Your task to perform on an android device: Go to Google maps Image 0: 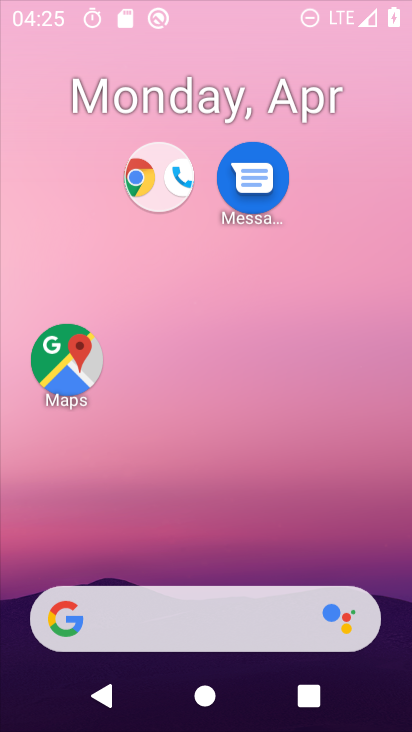
Step 0: click (239, 33)
Your task to perform on an android device: Go to Google maps Image 1: 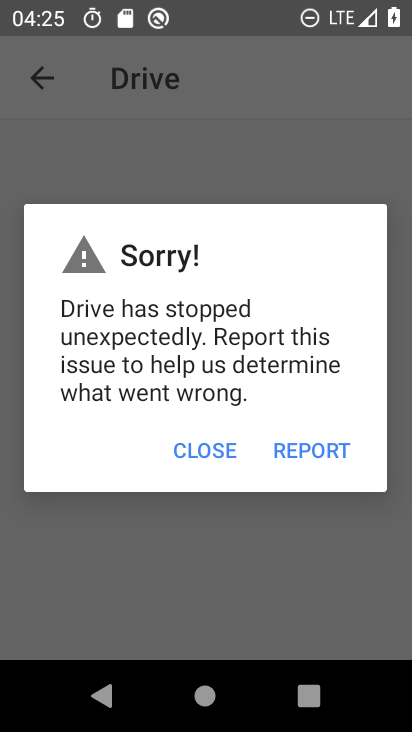
Step 1: press home button
Your task to perform on an android device: Go to Google maps Image 2: 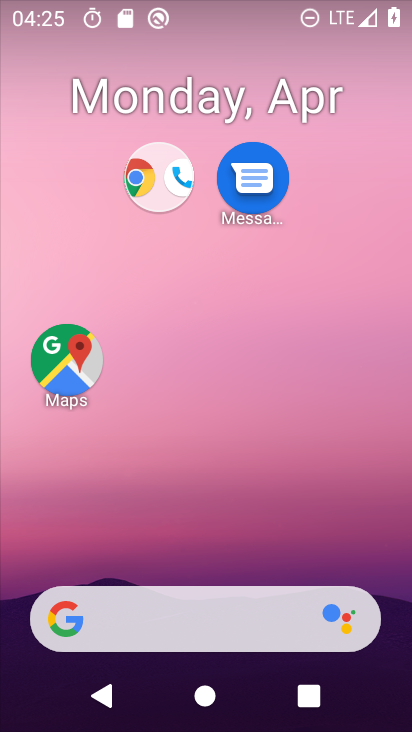
Step 2: drag from (219, 11) to (256, 682)
Your task to perform on an android device: Go to Google maps Image 3: 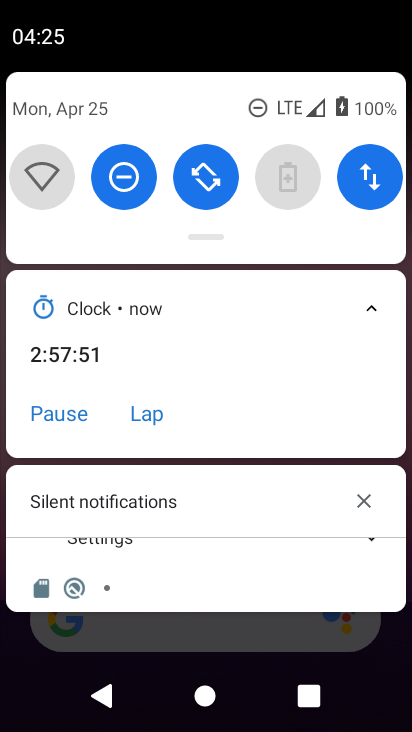
Step 3: drag from (264, 692) to (248, 0)
Your task to perform on an android device: Go to Google maps Image 4: 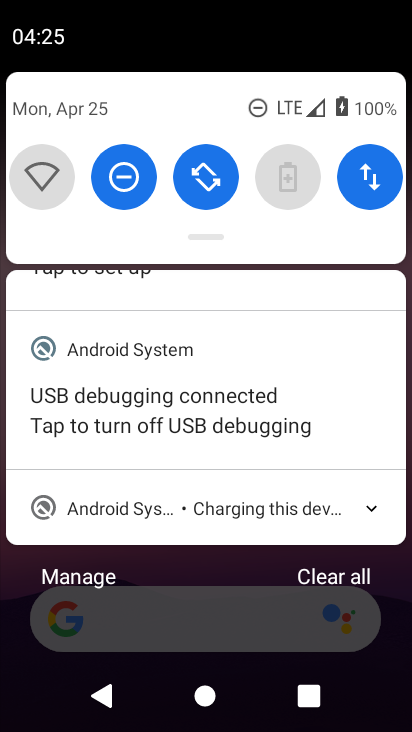
Step 4: drag from (206, 585) to (256, 93)
Your task to perform on an android device: Go to Google maps Image 5: 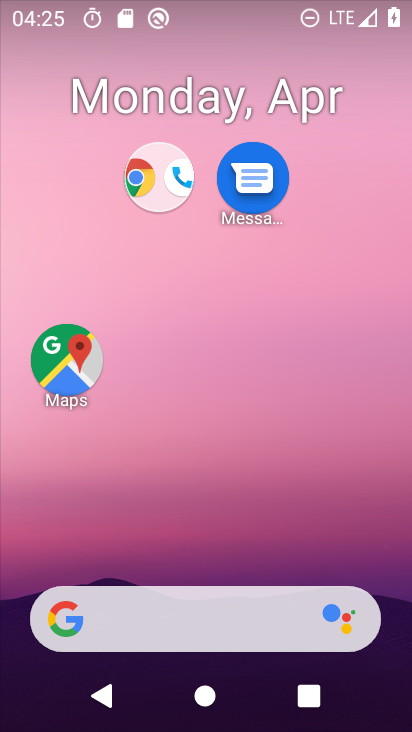
Step 5: drag from (209, 578) to (268, 5)
Your task to perform on an android device: Go to Google maps Image 6: 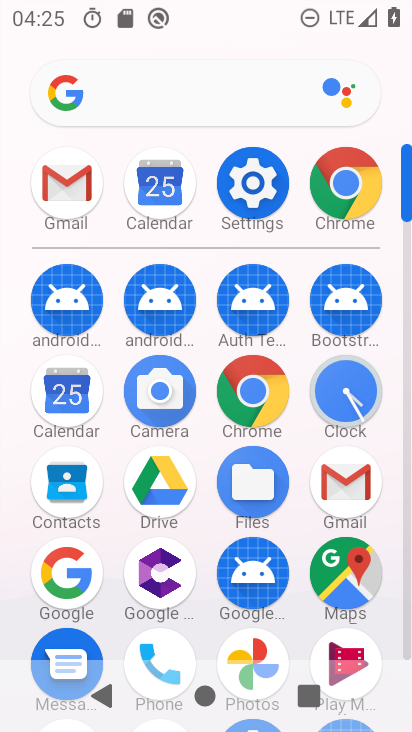
Step 6: click (327, 583)
Your task to perform on an android device: Go to Google maps Image 7: 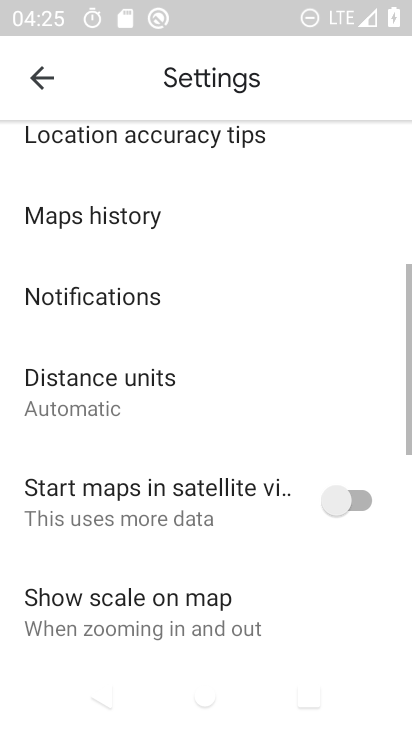
Step 7: press home button
Your task to perform on an android device: Go to Google maps Image 8: 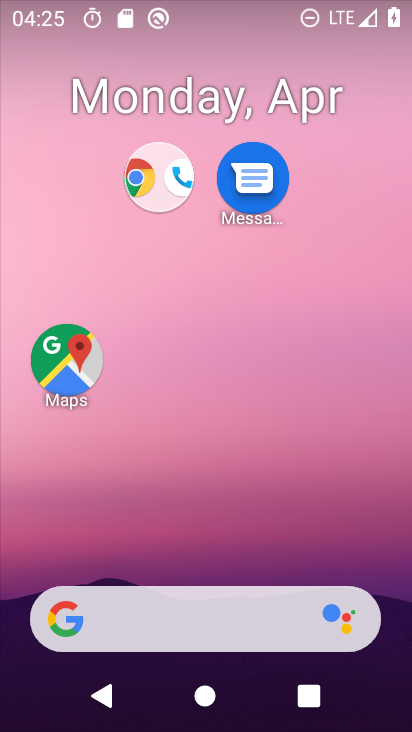
Step 8: drag from (253, 607) to (254, 11)
Your task to perform on an android device: Go to Google maps Image 9: 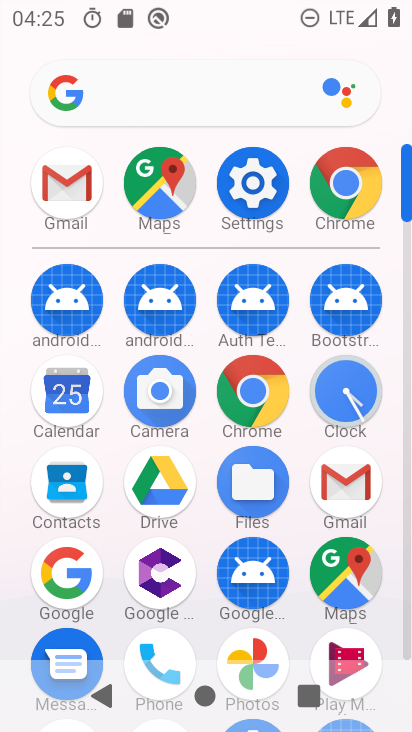
Step 9: click (320, 578)
Your task to perform on an android device: Go to Google maps Image 10: 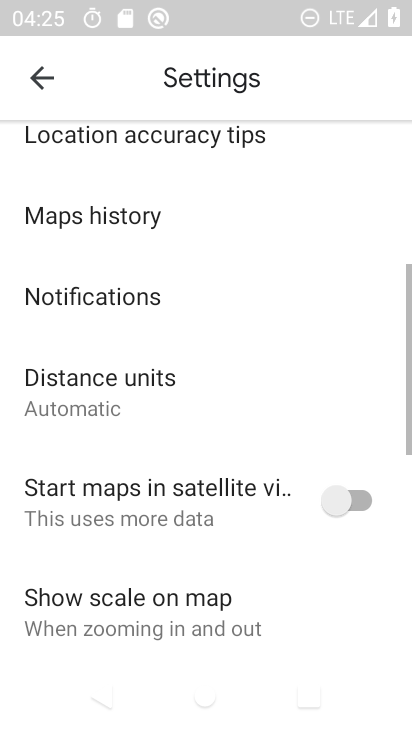
Step 10: task complete